Your task to perform on an android device: toggle notifications settings in the gmail app Image 0: 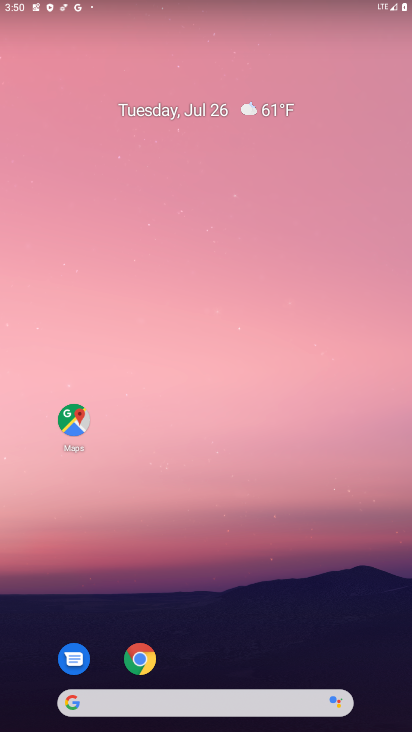
Step 0: drag from (333, 593) to (290, 28)
Your task to perform on an android device: toggle notifications settings in the gmail app Image 1: 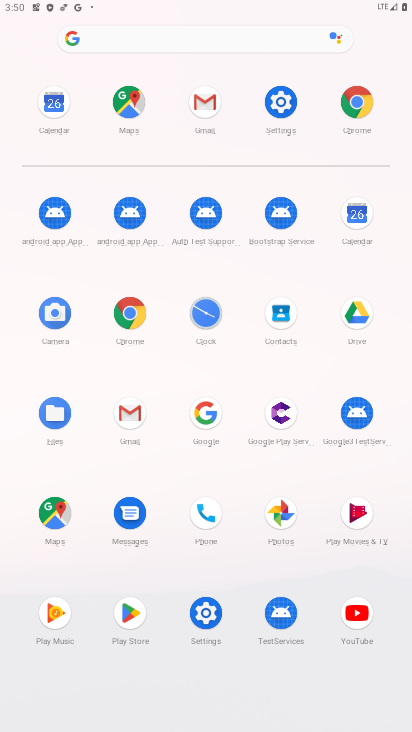
Step 1: click (203, 114)
Your task to perform on an android device: toggle notifications settings in the gmail app Image 2: 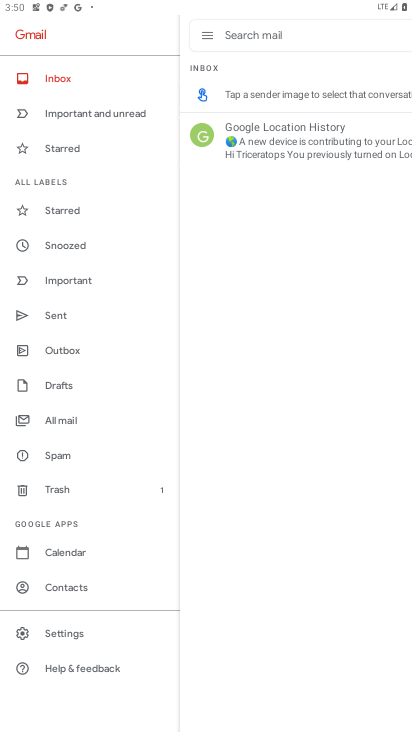
Step 2: click (63, 629)
Your task to perform on an android device: toggle notifications settings in the gmail app Image 3: 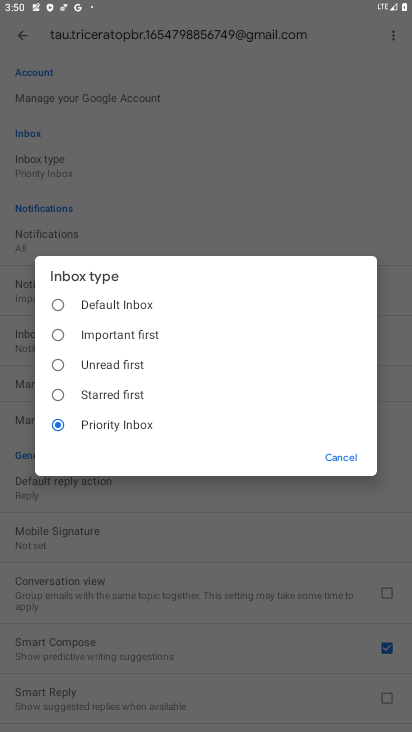
Step 3: click (346, 448)
Your task to perform on an android device: toggle notifications settings in the gmail app Image 4: 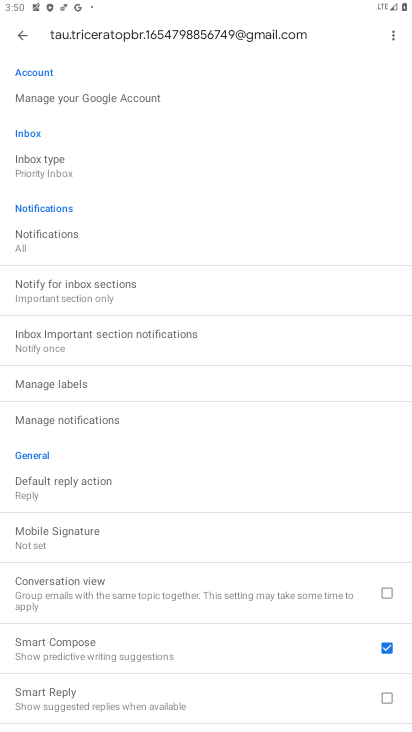
Step 4: click (83, 425)
Your task to perform on an android device: toggle notifications settings in the gmail app Image 5: 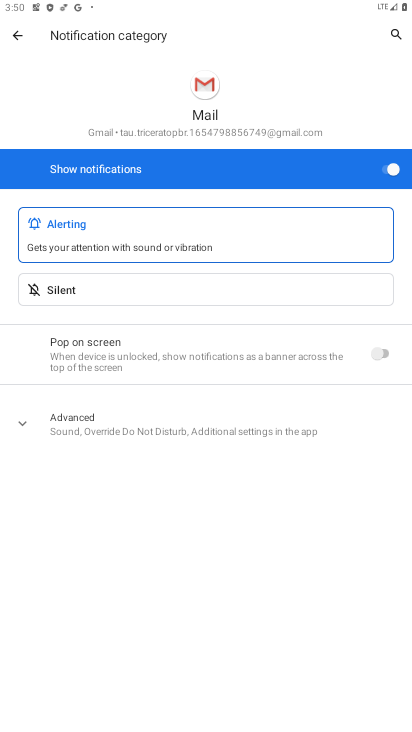
Step 5: click (368, 167)
Your task to perform on an android device: toggle notifications settings in the gmail app Image 6: 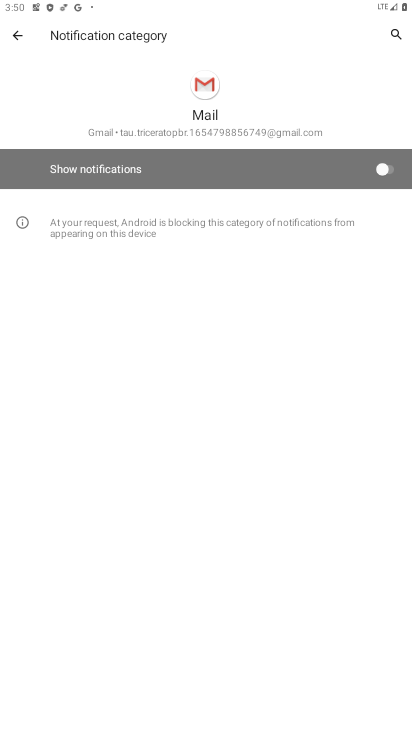
Step 6: task complete